Your task to perform on an android device: Go to Wikipedia Image 0: 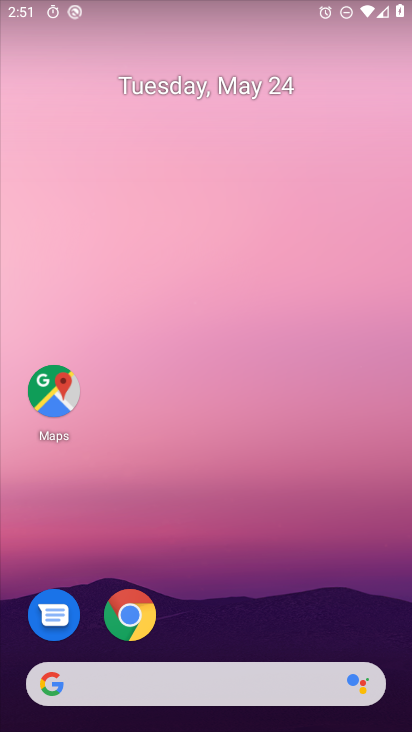
Step 0: click (123, 621)
Your task to perform on an android device: Go to Wikipedia Image 1: 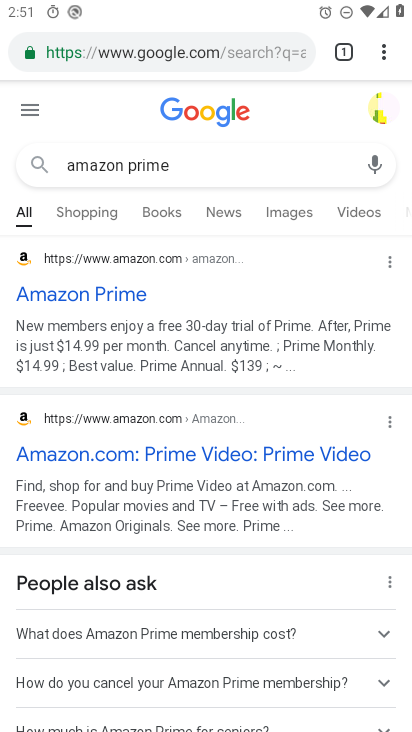
Step 1: click (340, 54)
Your task to perform on an android device: Go to Wikipedia Image 2: 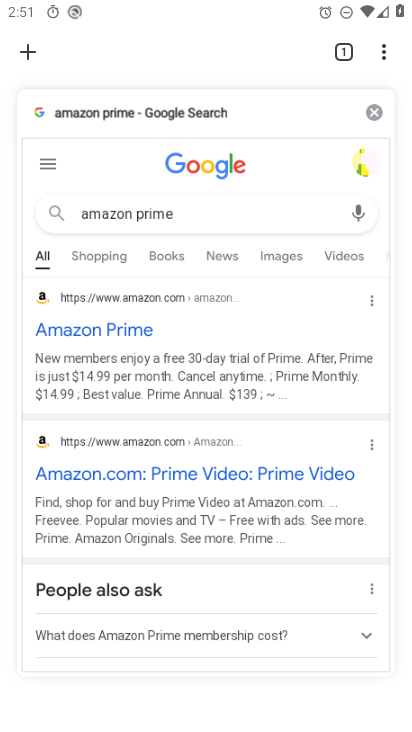
Step 2: click (375, 118)
Your task to perform on an android device: Go to Wikipedia Image 3: 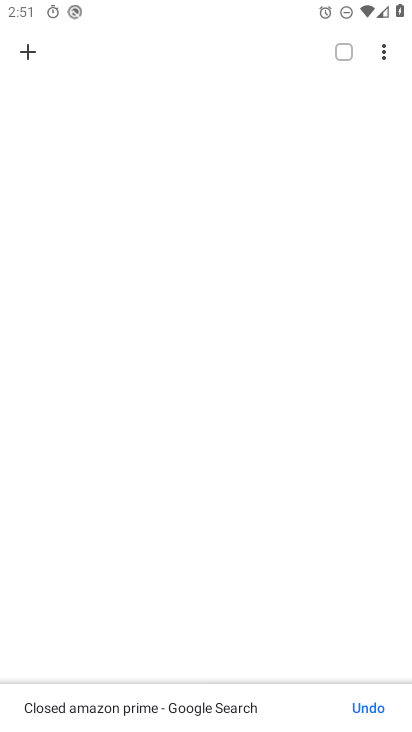
Step 3: click (26, 54)
Your task to perform on an android device: Go to Wikipedia Image 4: 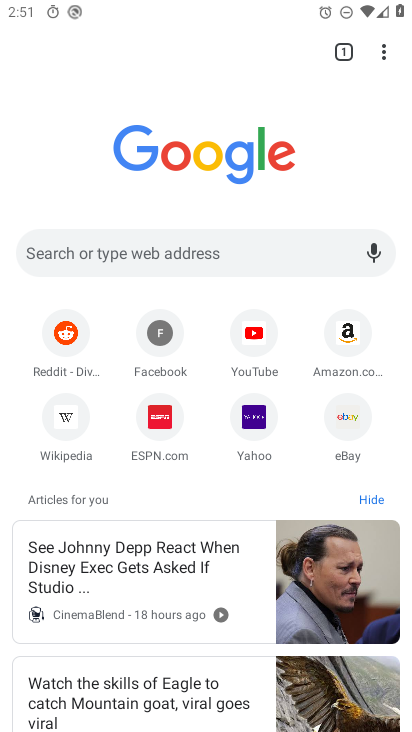
Step 4: click (65, 419)
Your task to perform on an android device: Go to Wikipedia Image 5: 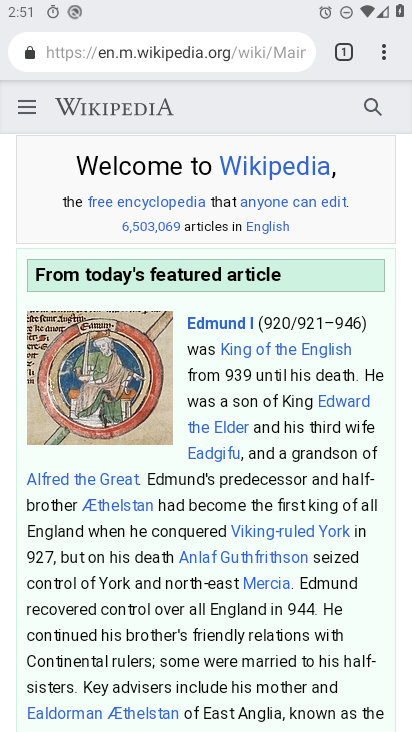
Step 5: task complete